Your task to perform on an android device: empty trash in google photos Image 0: 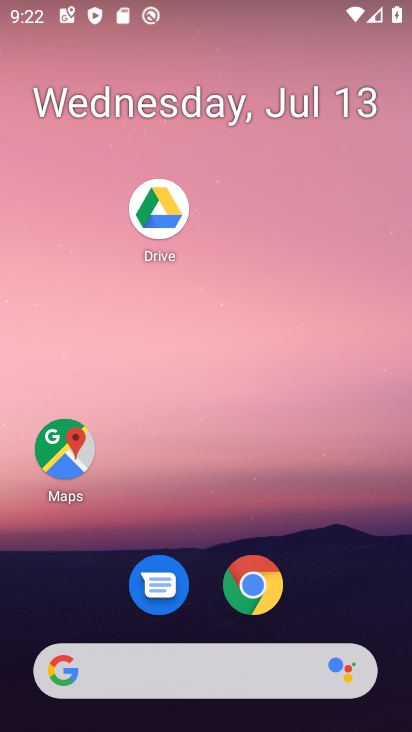
Step 0: drag from (211, 592) to (388, 59)
Your task to perform on an android device: empty trash in google photos Image 1: 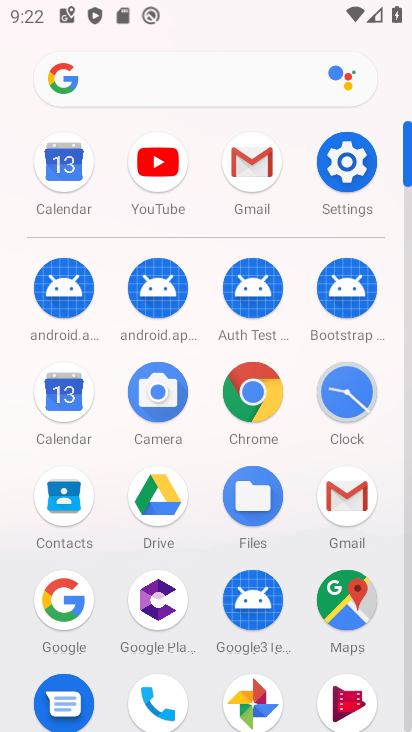
Step 1: click (248, 688)
Your task to perform on an android device: empty trash in google photos Image 2: 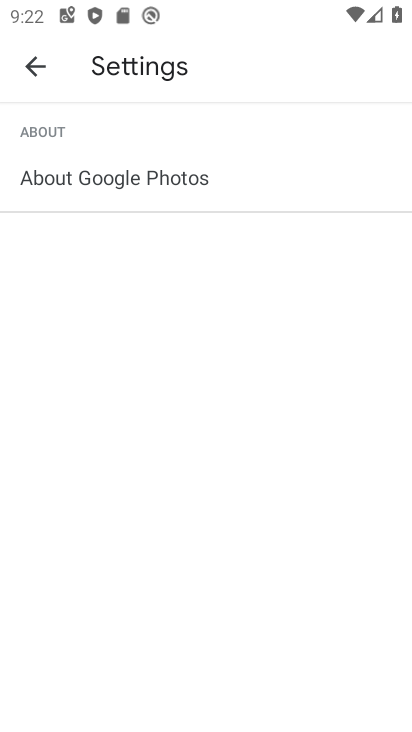
Step 2: click (49, 62)
Your task to perform on an android device: empty trash in google photos Image 3: 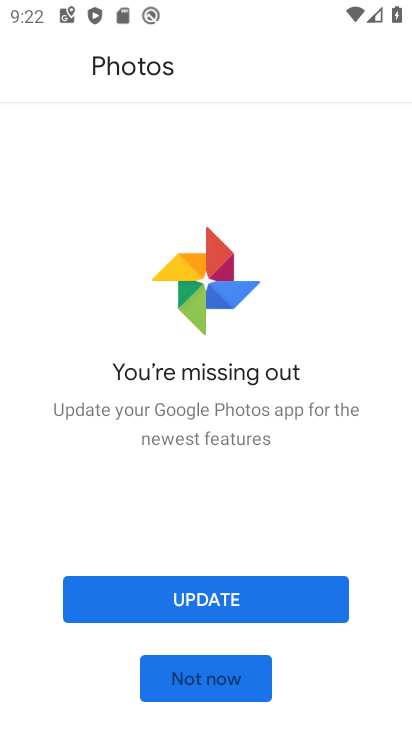
Step 3: click (225, 678)
Your task to perform on an android device: empty trash in google photos Image 4: 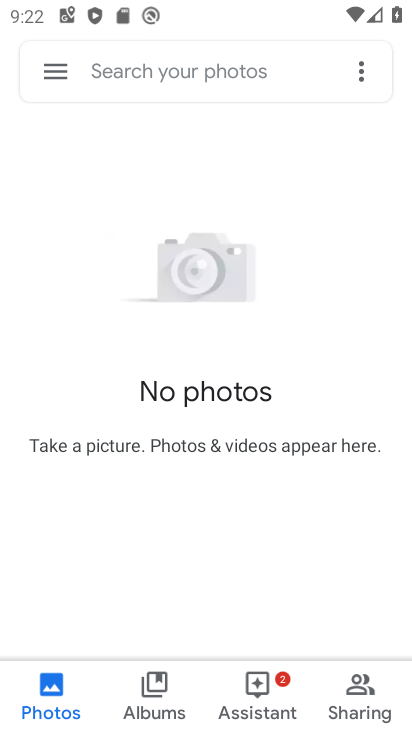
Step 4: click (50, 70)
Your task to perform on an android device: empty trash in google photos Image 5: 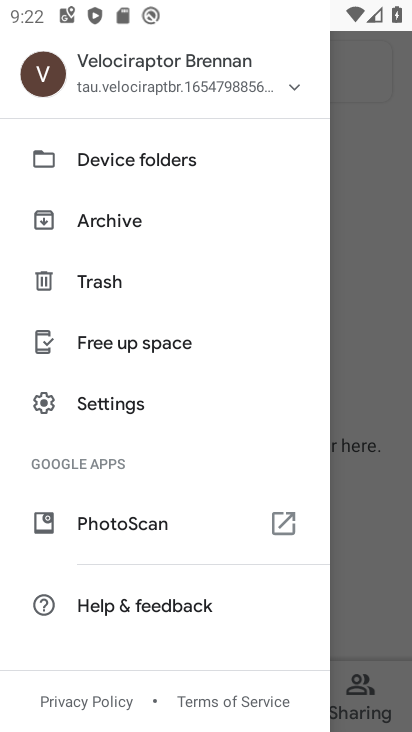
Step 5: click (100, 277)
Your task to perform on an android device: empty trash in google photos Image 6: 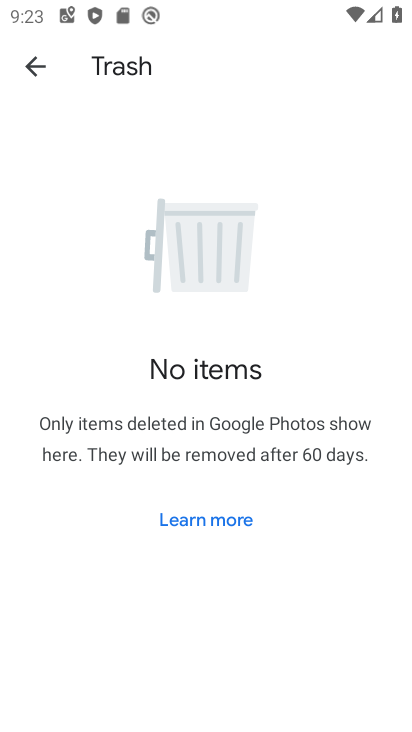
Step 6: task complete